Your task to perform on an android device: open wifi settings Image 0: 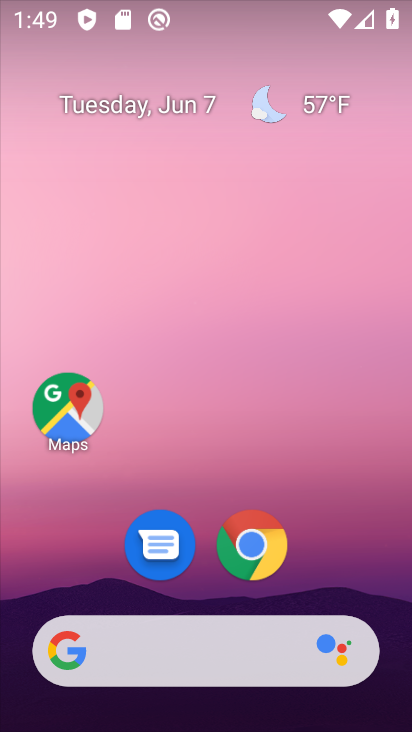
Step 0: drag from (360, 550) to (188, 20)
Your task to perform on an android device: open wifi settings Image 1: 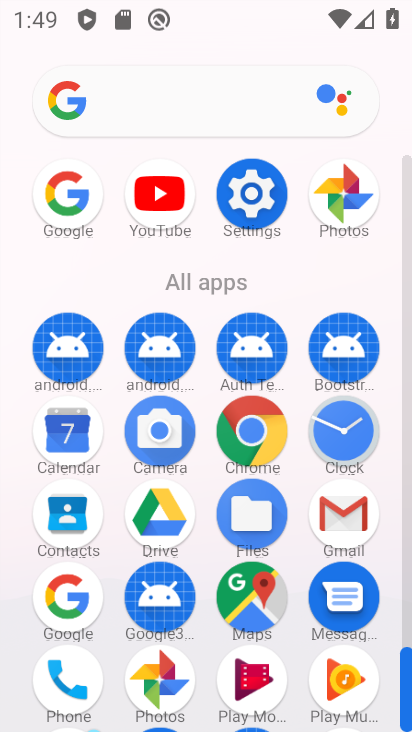
Step 1: click (252, 185)
Your task to perform on an android device: open wifi settings Image 2: 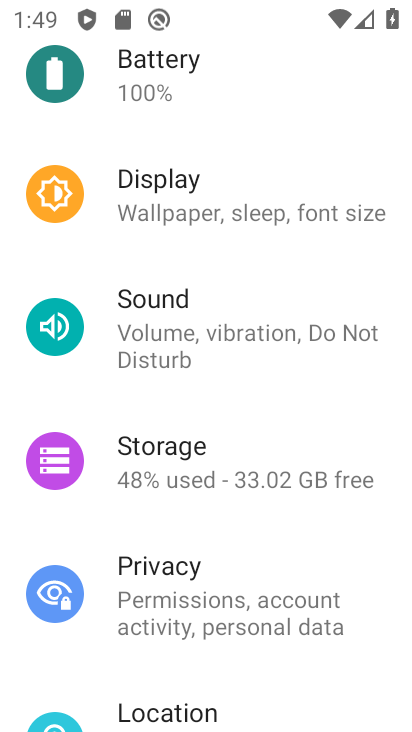
Step 2: drag from (256, 162) to (257, 663)
Your task to perform on an android device: open wifi settings Image 3: 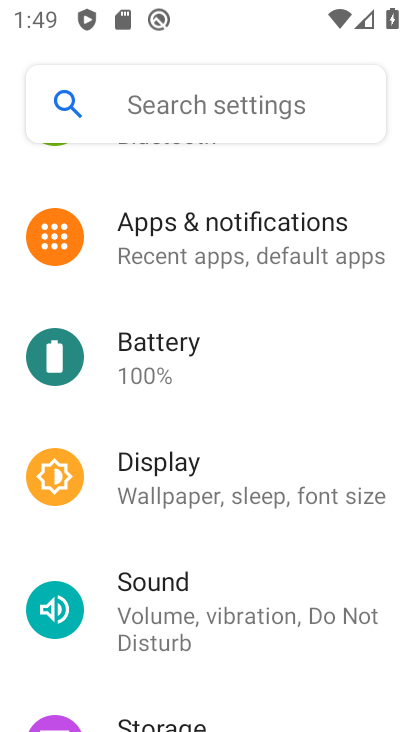
Step 3: drag from (231, 240) to (280, 700)
Your task to perform on an android device: open wifi settings Image 4: 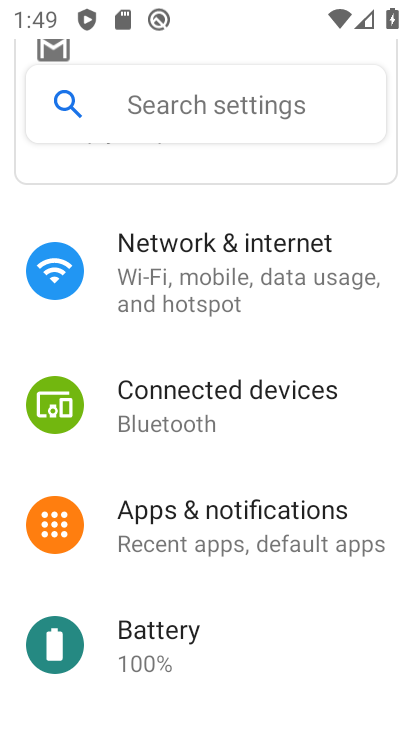
Step 4: click (217, 267)
Your task to perform on an android device: open wifi settings Image 5: 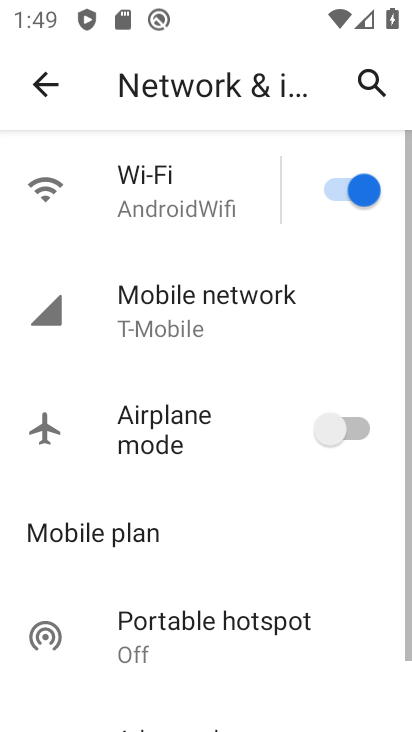
Step 5: click (155, 171)
Your task to perform on an android device: open wifi settings Image 6: 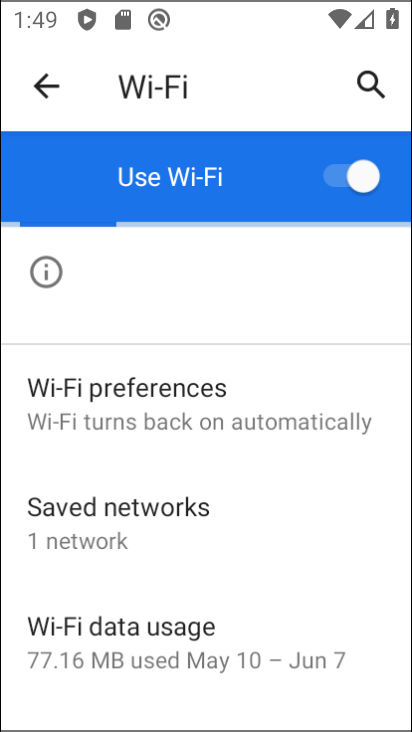
Step 6: task complete